Your task to perform on an android device: Go to Amazon Image 0: 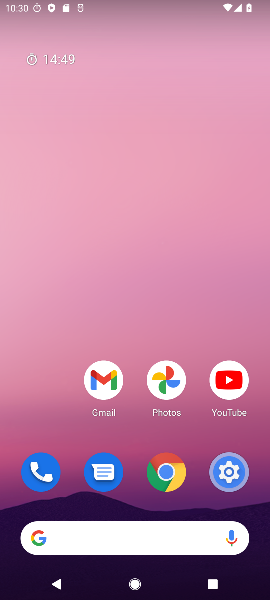
Step 0: drag from (180, 333) to (100, 13)
Your task to perform on an android device: Go to Amazon Image 1: 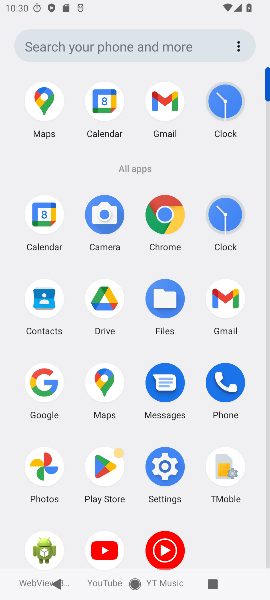
Step 1: click (170, 217)
Your task to perform on an android device: Go to Amazon Image 2: 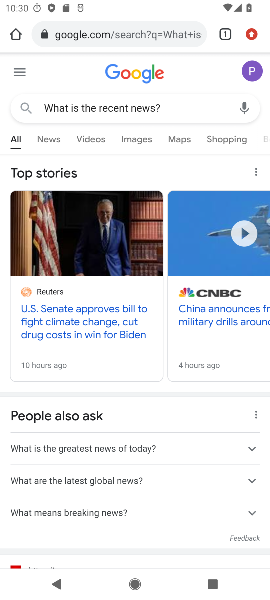
Step 2: click (220, 28)
Your task to perform on an android device: Go to Amazon Image 3: 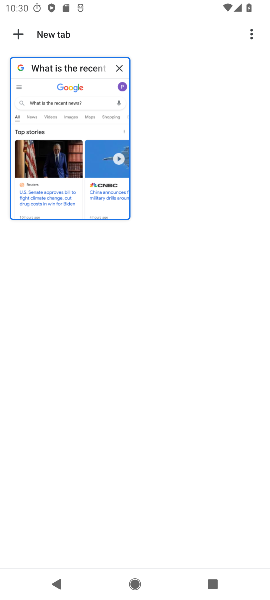
Step 3: click (30, 31)
Your task to perform on an android device: Go to Amazon Image 4: 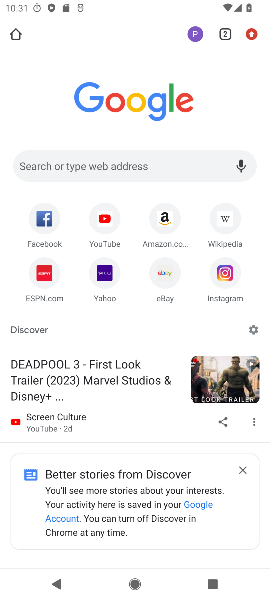
Step 4: click (161, 220)
Your task to perform on an android device: Go to Amazon Image 5: 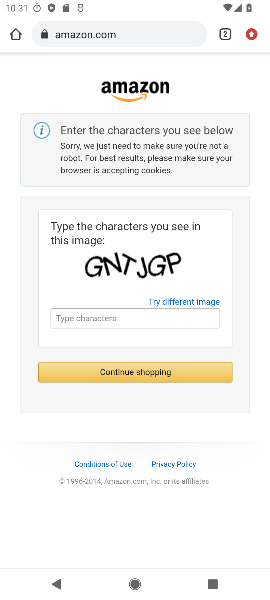
Step 5: task complete